Your task to perform on an android device: set the stopwatch Image 0: 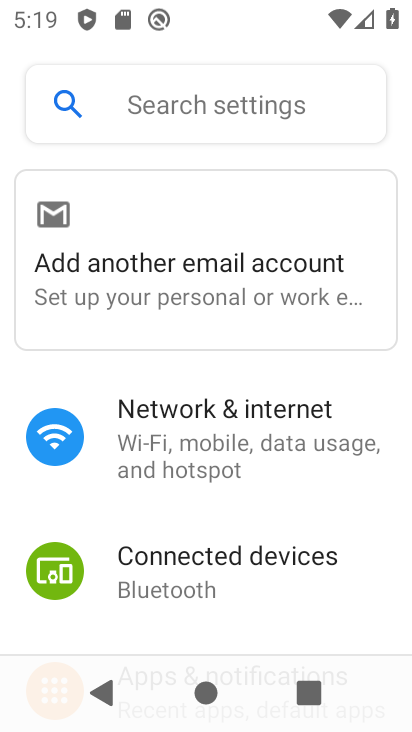
Step 0: press home button
Your task to perform on an android device: set the stopwatch Image 1: 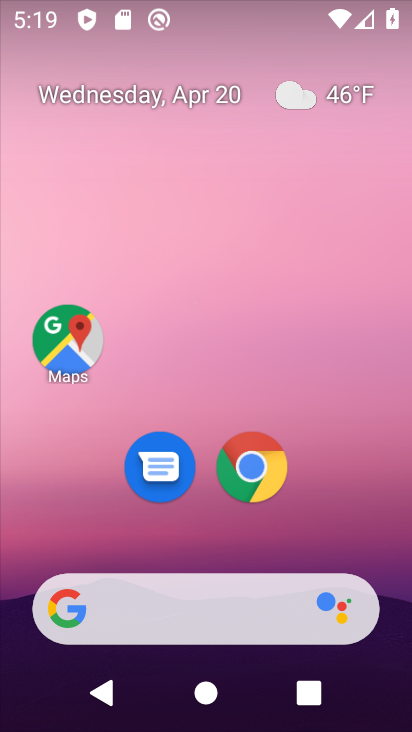
Step 1: drag from (223, 536) to (231, 2)
Your task to perform on an android device: set the stopwatch Image 2: 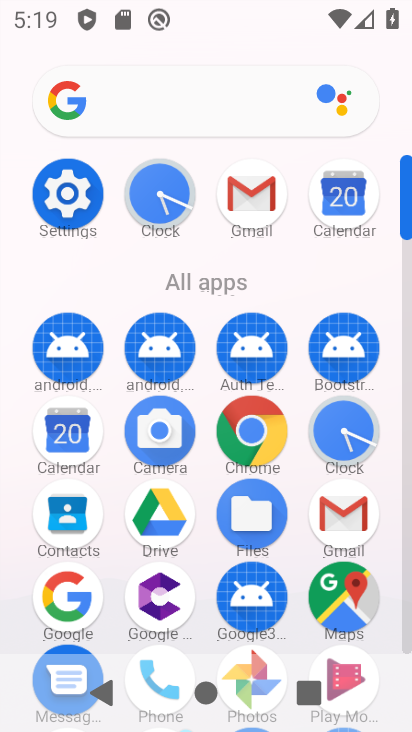
Step 2: click (155, 201)
Your task to perform on an android device: set the stopwatch Image 3: 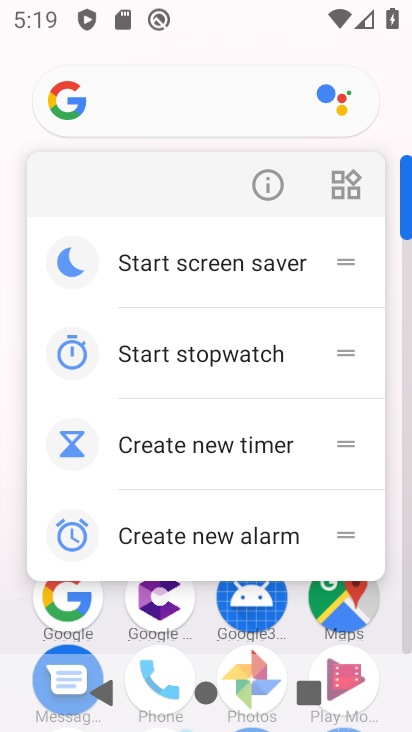
Step 3: drag from (219, 636) to (225, 530)
Your task to perform on an android device: set the stopwatch Image 4: 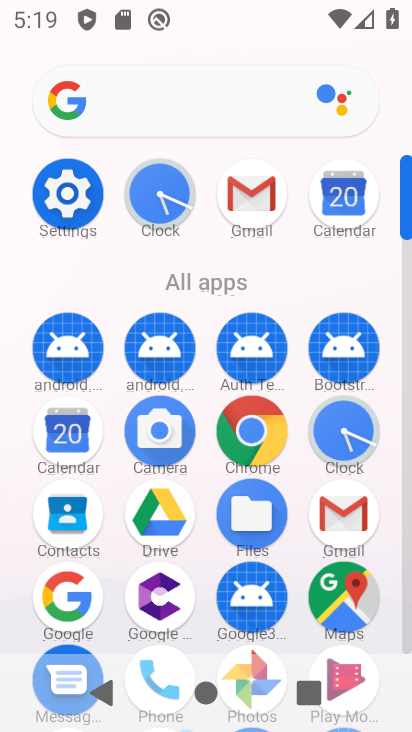
Step 4: click (162, 207)
Your task to perform on an android device: set the stopwatch Image 5: 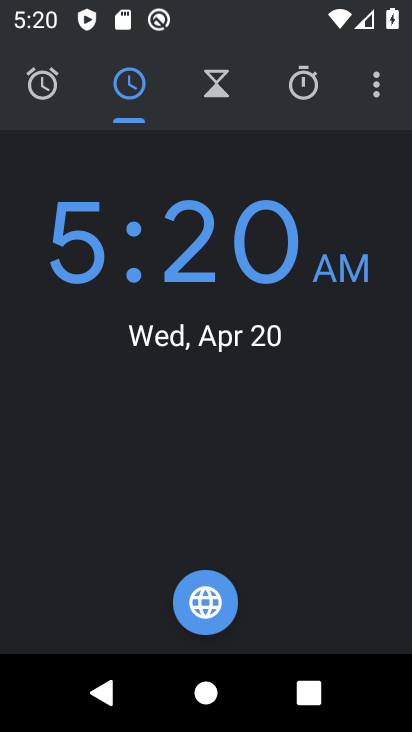
Step 5: click (300, 91)
Your task to perform on an android device: set the stopwatch Image 6: 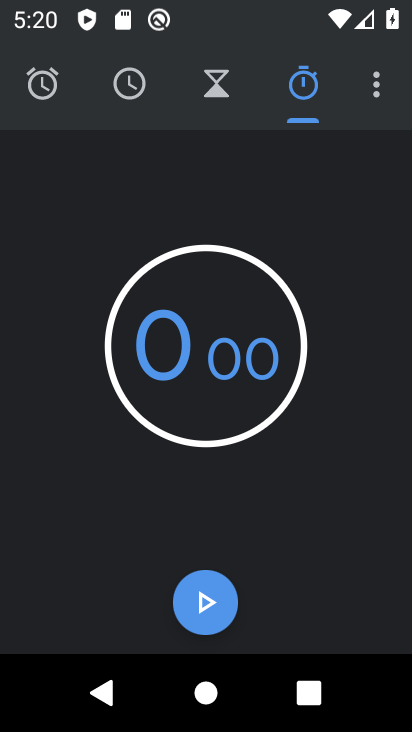
Step 6: click (202, 597)
Your task to perform on an android device: set the stopwatch Image 7: 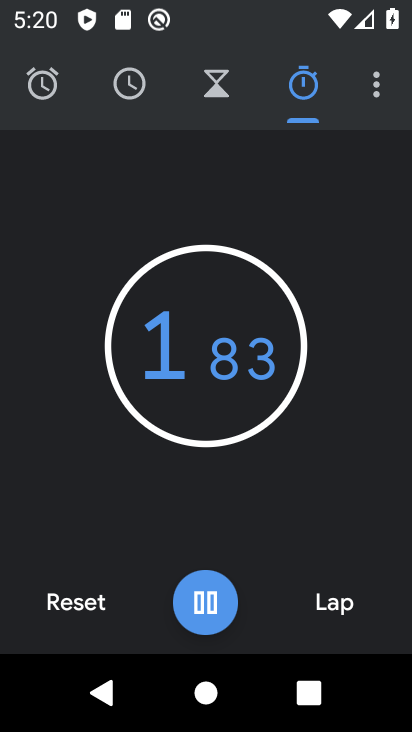
Step 7: task complete